Your task to perform on an android device: turn on showing notifications on the lock screen Image 0: 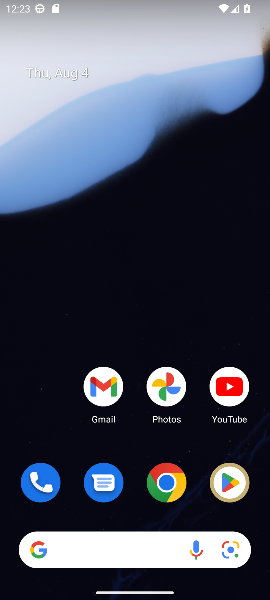
Step 0: drag from (141, 514) to (140, 161)
Your task to perform on an android device: turn on showing notifications on the lock screen Image 1: 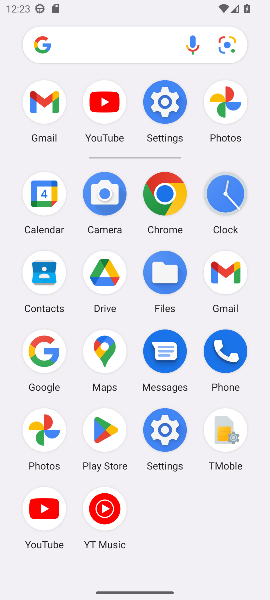
Step 1: click (164, 122)
Your task to perform on an android device: turn on showing notifications on the lock screen Image 2: 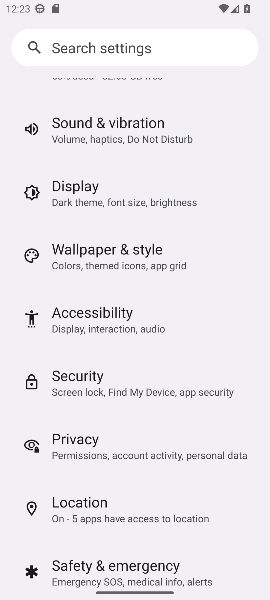
Step 2: drag from (141, 220) to (155, 400)
Your task to perform on an android device: turn on showing notifications on the lock screen Image 3: 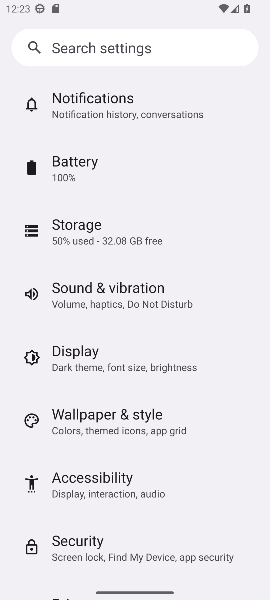
Step 3: click (117, 113)
Your task to perform on an android device: turn on showing notifications on the lock screen Image 4: 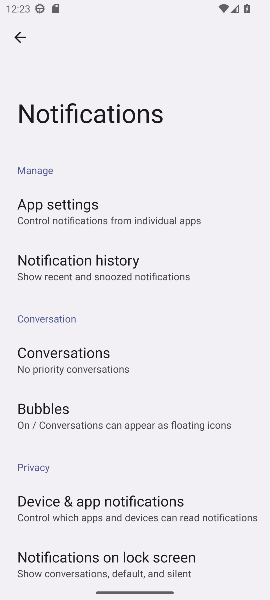
Step 4: drag from (119, 496) to (126, 297)
Your task to perform on an android device: turn on showing notifications on the lock screen Image 5: 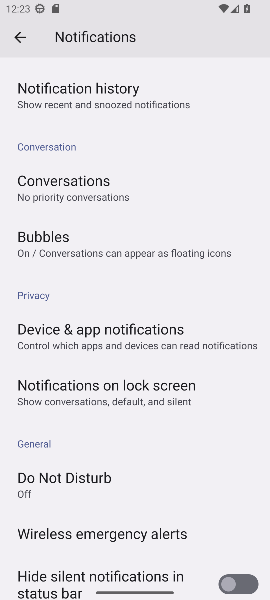
Step 5: click (131, 408)
Your task to perform on an android device: turn on showing notifications on the lock screen Image 6: 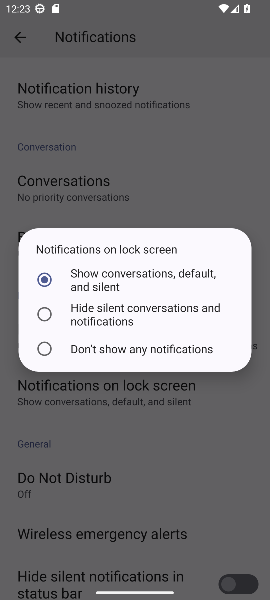
Step 6: task complete